Your task to perform on an android device: Go to Reddit.com Image 0: 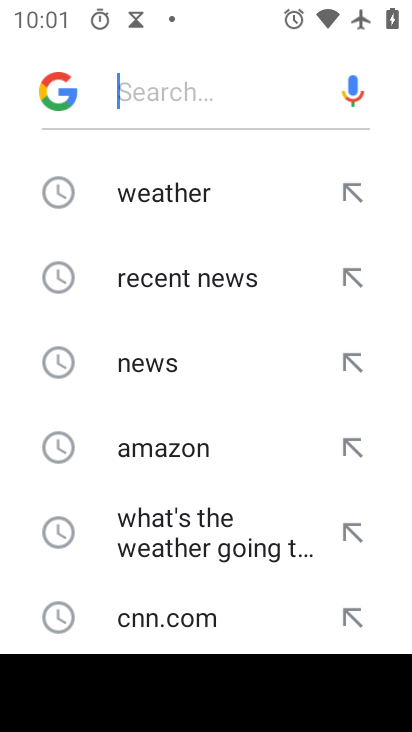
Step 0: press home button
Your task to perform on an android device: Go to Reddit.com Image 1: 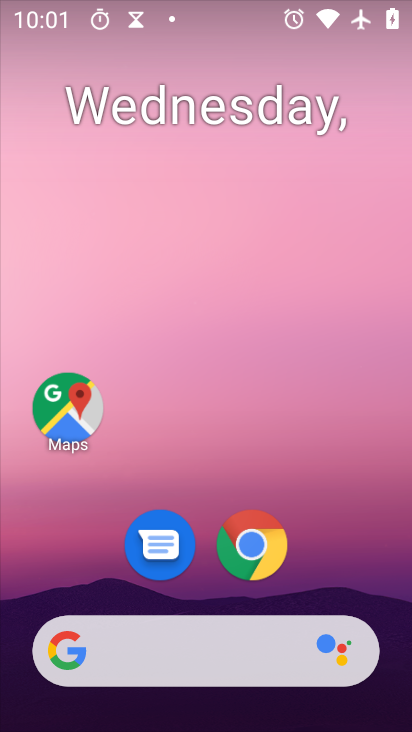
Step 1: click (264, 555)
Your task to perform on an android device: Go to Reddit.com Image 2: 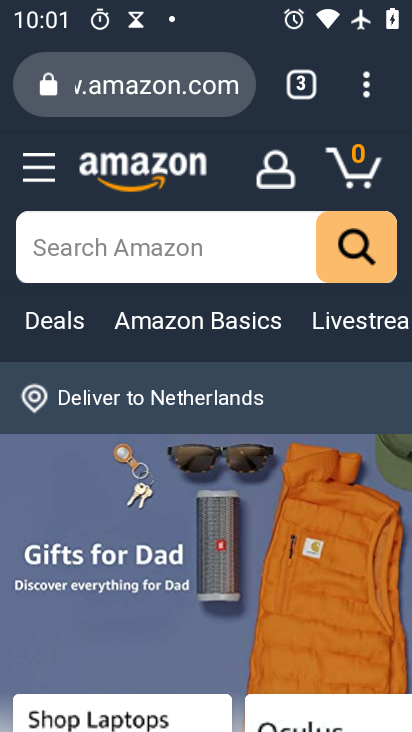
Step 2: drag from (368, 100) to (137, 168)
Your task to perform on an android device: Go to Reddit.com Image 3: 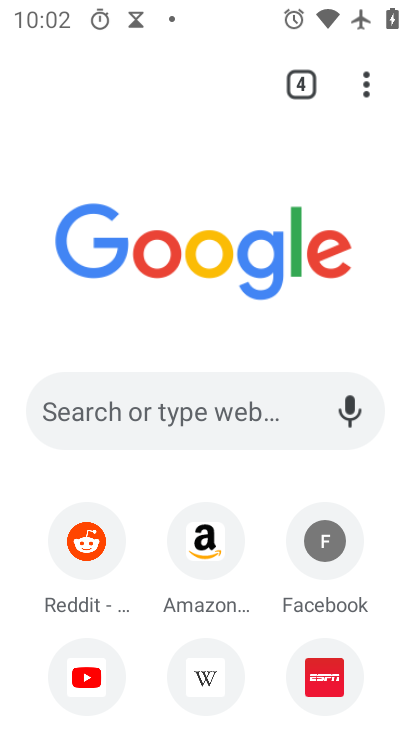
Step 3: click (95, 542)
Your task to perform on an android device: Go to Reddit.com Image 4: 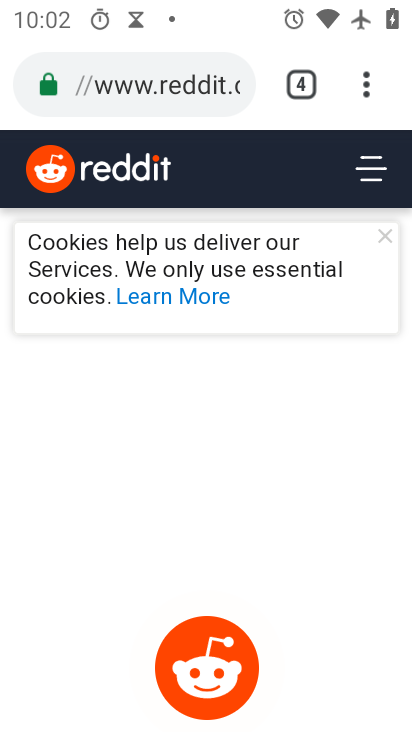
Step 4: task complete